Your task to perform on an android device: turn on the 24-hour format for clock Image 0: 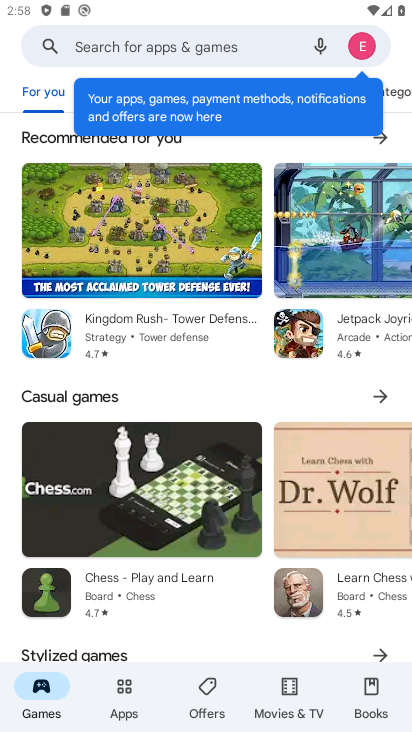
Step 0: press home button
Your task to perform on an android device: turn on the 24-hour format for clock Image 1: 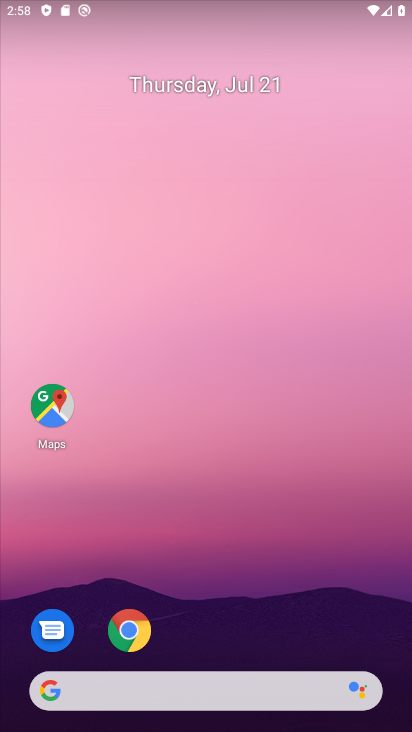
Step 1: drag from (162, 634) to (198, 96)
Your task to perform on an android device: turn on the 24-hour format for clock Image 2: 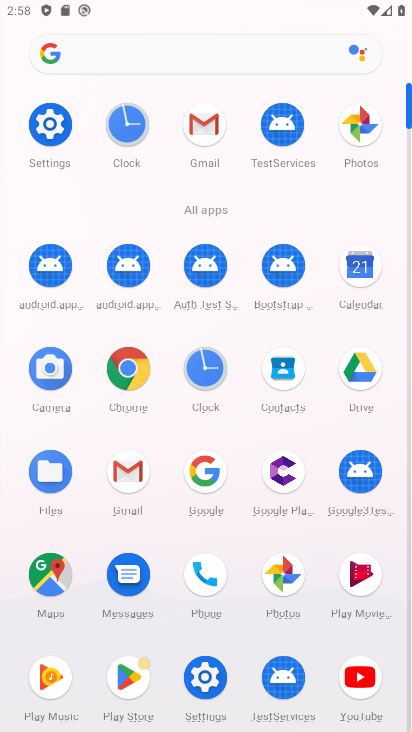
Step 2: click (116, 121)
Your task to perform on an android device: turn on the 24-hour format for clock Image 3: 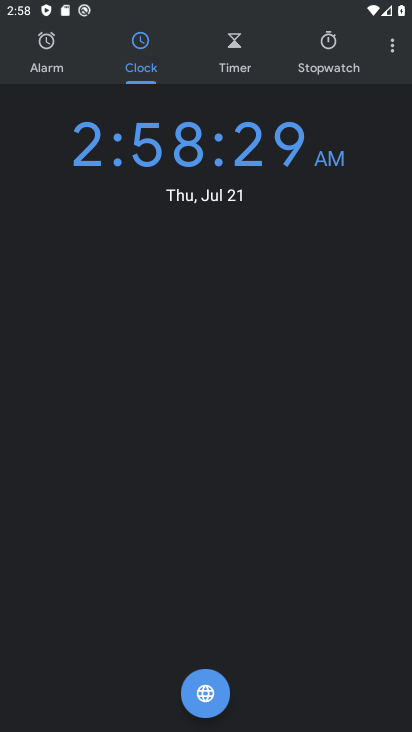
Step 3: click (394, 65)
Your task to perform on an android device: turn on the 24-hour format for clock Image 4: 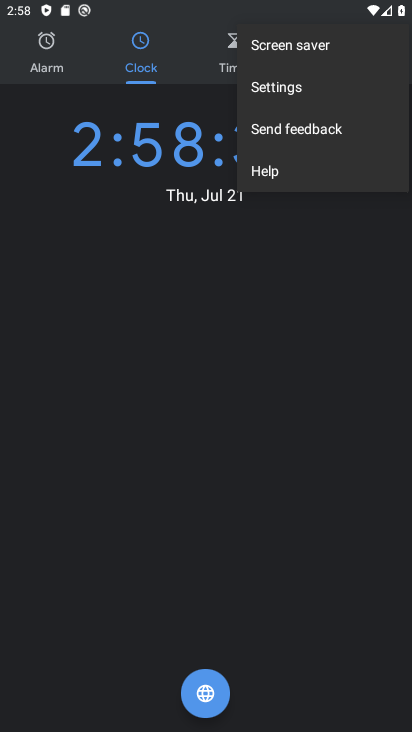
Step 4: click (319, 98)
Your task to perform on an android device: turn on the 24-hour format for clock Image 5: 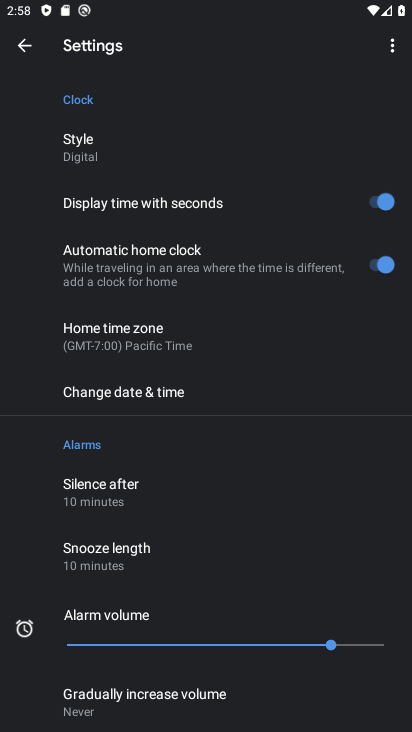
Step 5: click (147, 400)
Your task to perform on an android device: turn on the 24-hour format for clock Image 6: 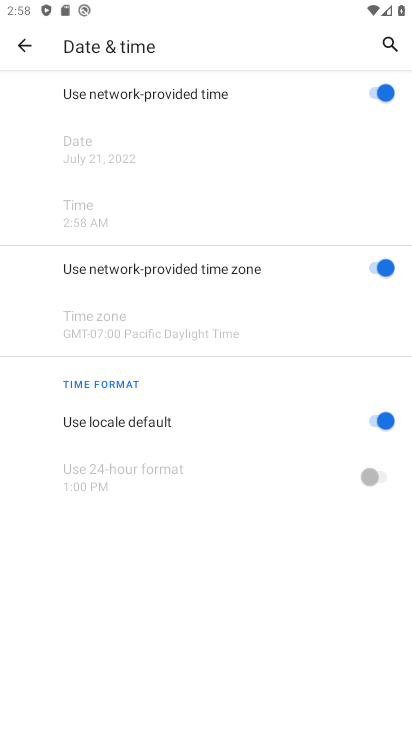
Step 6: click (376, 434)
Your task to perform on an android device: turn on the 24-hour format for clock Image 7: 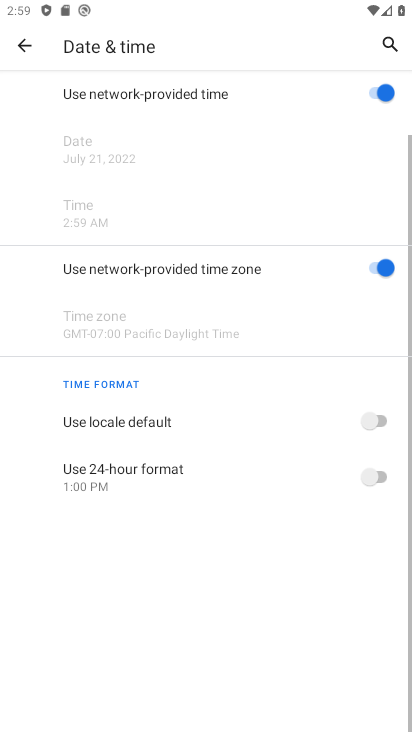
Step 7: click (384, 485)
Your task to perform on an android device: turn on the 24-hour format for clock Image 8: 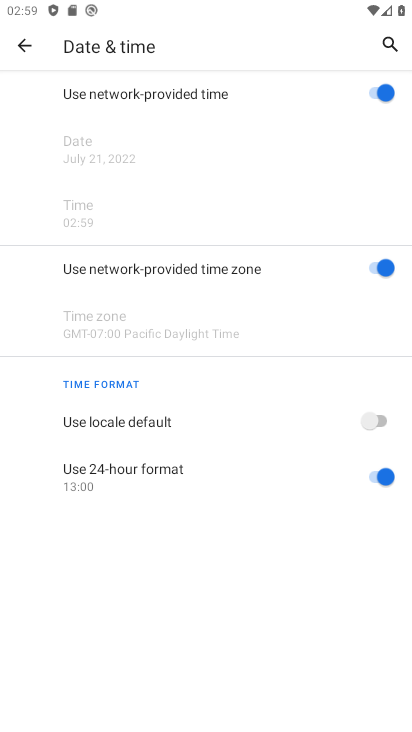
Step 8: task complete